Your task to perform on an android device: see tabs open on other devices in the chrome app Image 0: 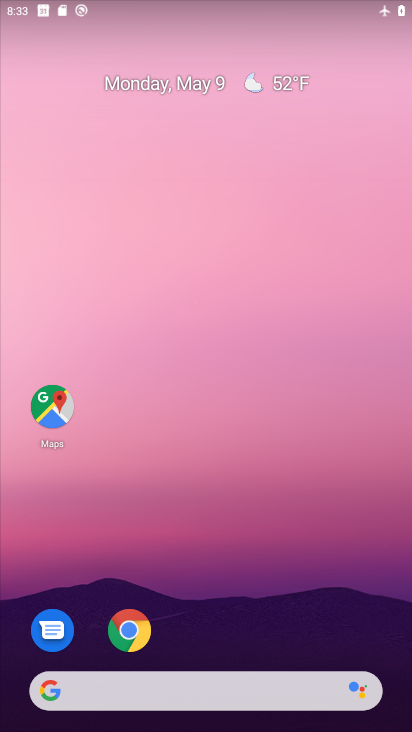
Step 0: click (141, 631)
Your task to perform on an android device: see tabs open on other devices in the chrome app Image 1: 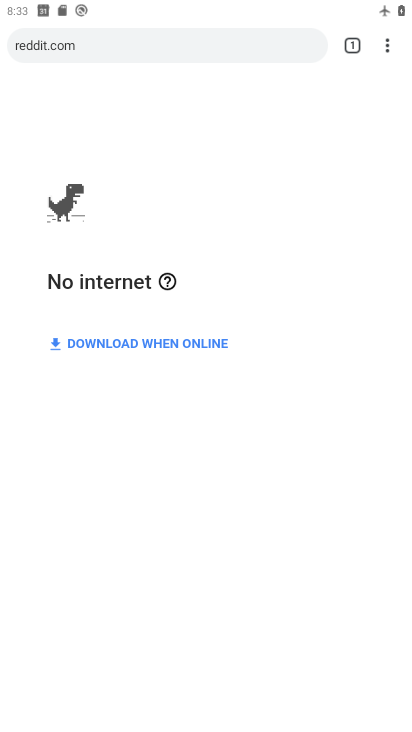
Step 1: click (395, 57)
Your task to perform on an android device: see tabs open on other devices in the chrome app Image 2: 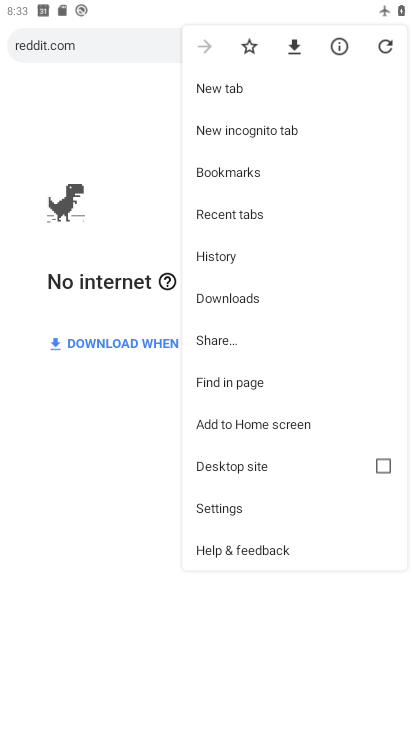
Step 2: click (246, 220)
Your task to perform on an android device: see tabs open on other devices in the chrome app Image 3: 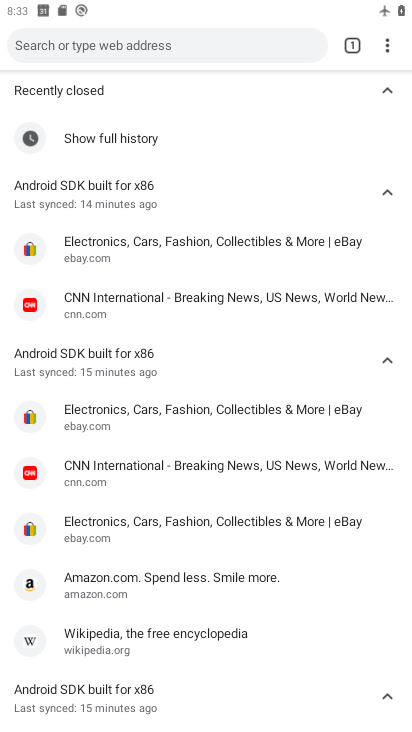
Step 3: task complete